Your task to perform on an android device: Open the stopwatch Image 0: 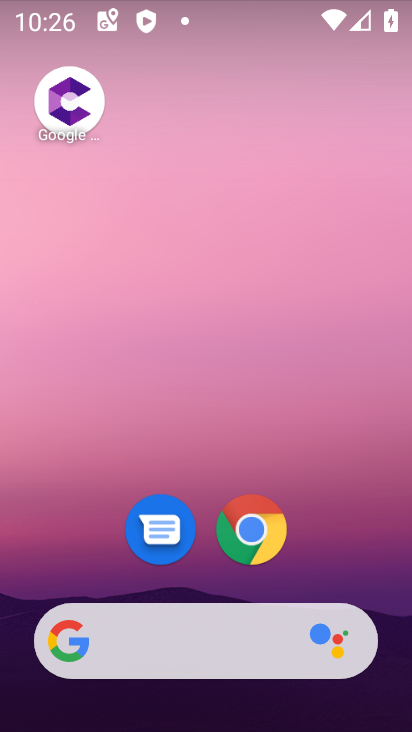
Step 0: drag from (211, 573) to (205, 150)
Your task to perform on an android device: Open the stopwatch Image 1: 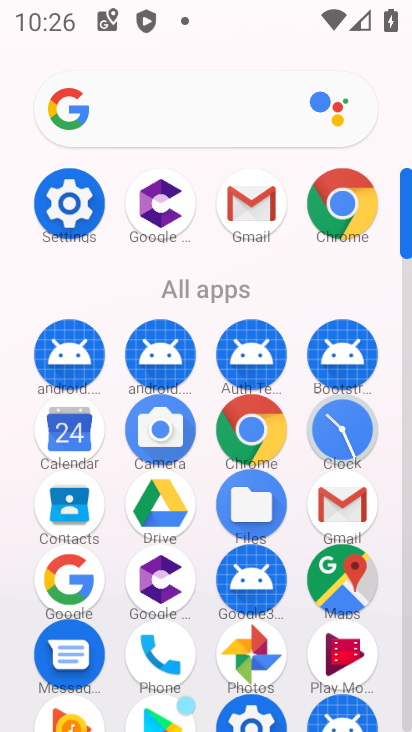
Step 1: click (349, 414)
Your task to perform on an android device: Open the stopwatch Image 2: 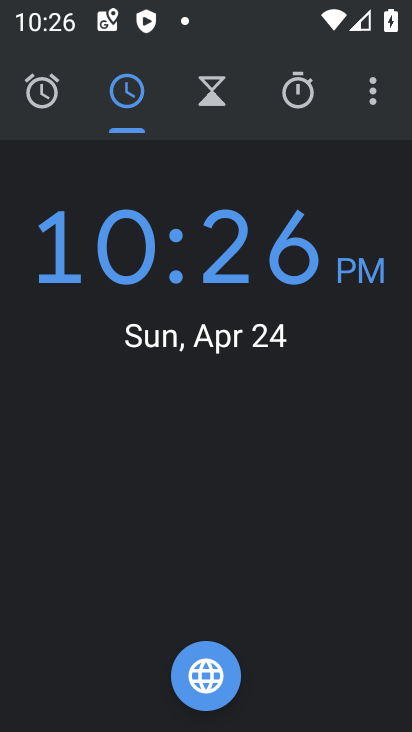
Step 2: click (300, 111)
Your task to perform on an android device: Open the stopwatch Image 3: 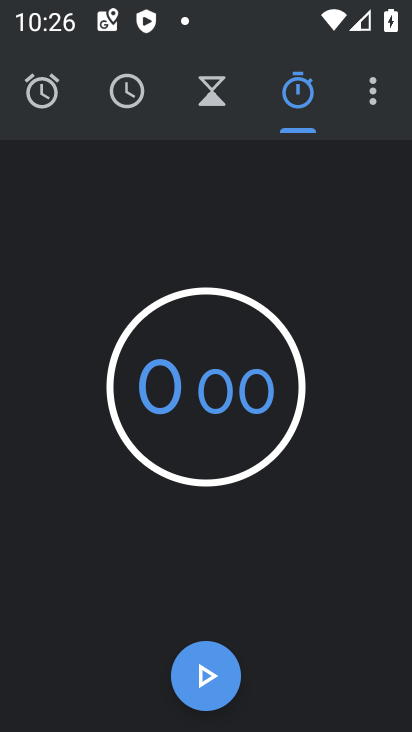
Step 3: click (209, 664)
Your task to perform on an android device: Open the stopwatch Image 4: 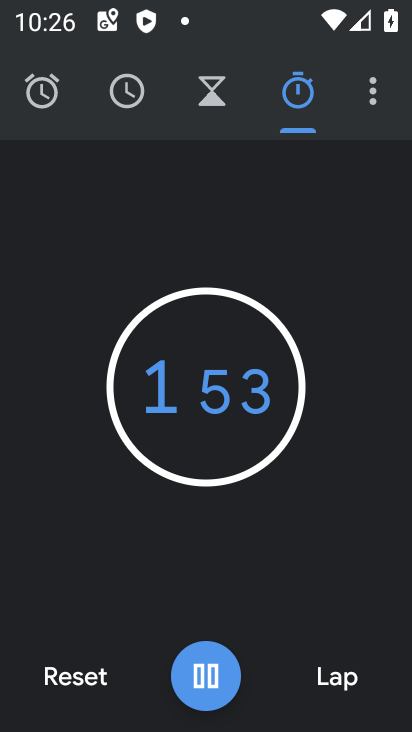
Step 4: task complete